Your task to perform on an android device: open the mobile data screen to see how much data has been used Image 0: 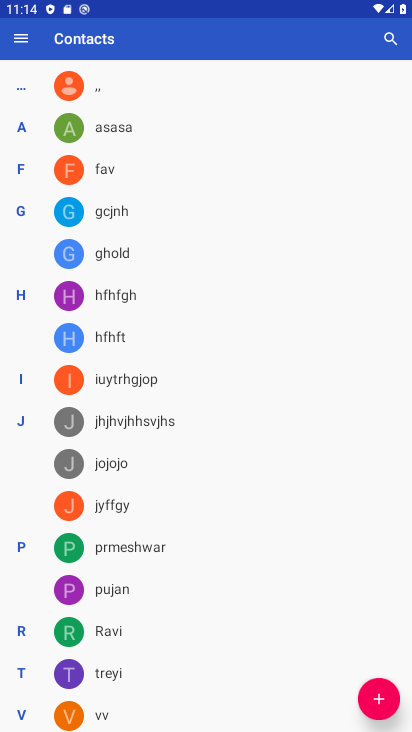
Step 0: drag from (155, 427) to (318, 731)
Your task to perform on an android device: open the mobile data screen to see how much data has been used Image 1: 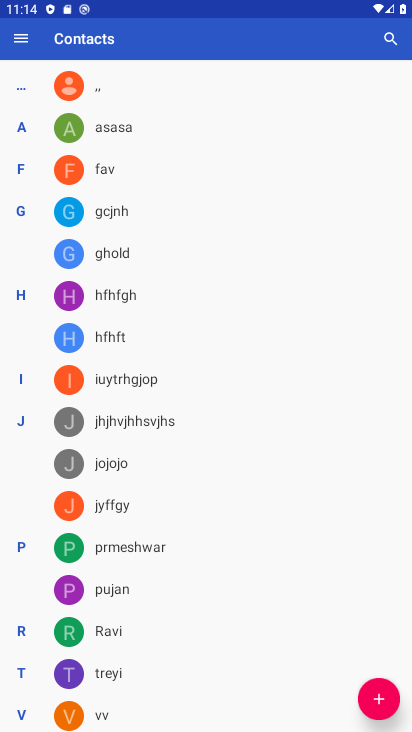
Step 1: drag from (210, 666) to (396, 717)
Your task to perform on an android device: open the mobile data screen to see how much data has been used Image 2: 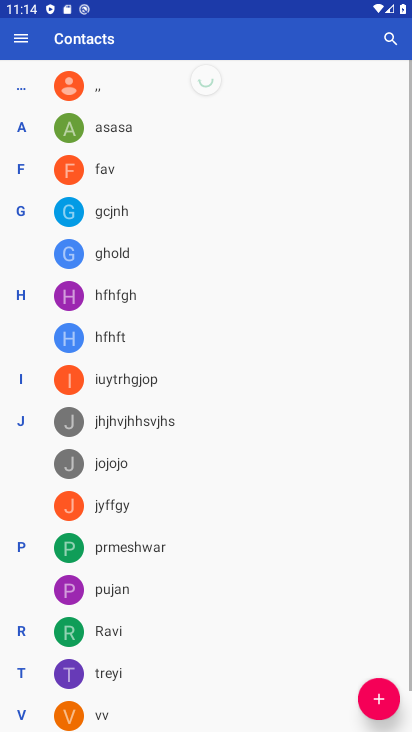
Step 2: press home button
Your task to perform on an android device: open the mobile data screen to see how much data has been used Image 3: 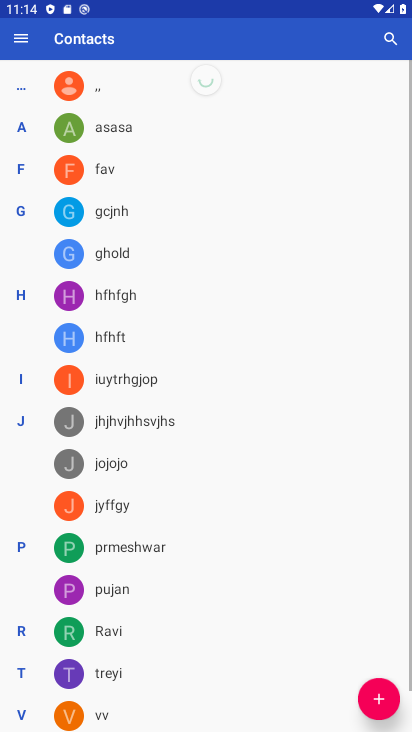
Step 3: drag from (396, 717) to (337, 32)
Your task to perform on an android device: open the mobile data screen to see how much data has been used Image 4: 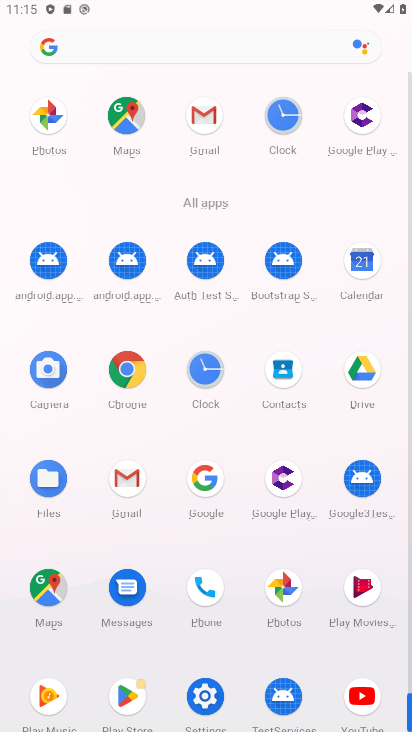
Step 4: click (210, 710)
Your task to perform on an android device: open the mobile data screen to see how much data has been used Image 5: 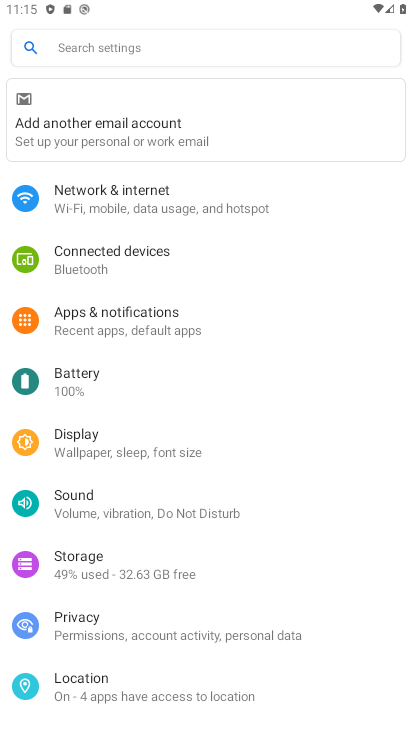
Step 5: click (216, 197)
Your task to perform on an android device: open the mobile data screen to see how much data has been used Image 6: 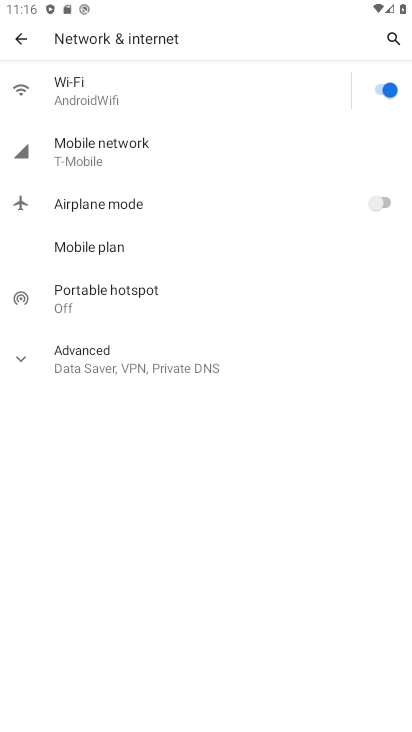
Step 6: click (182, 151)
Your task to perform on an android device: open the mobile data screen to see how much data has been used Image 7: 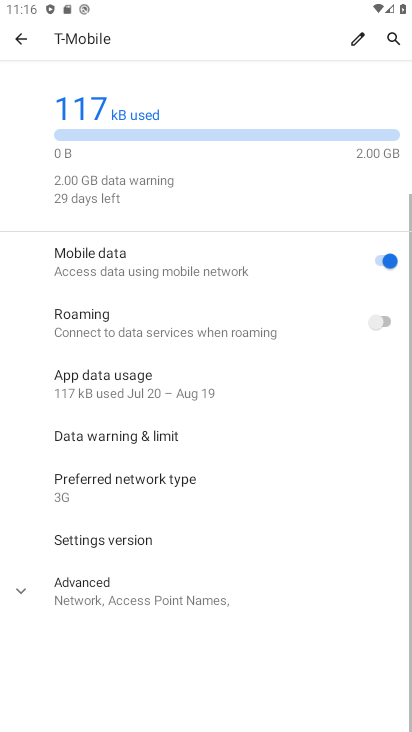
Step 7: task complete